Your task to perform on an android device: Go to Google maps Image 0: 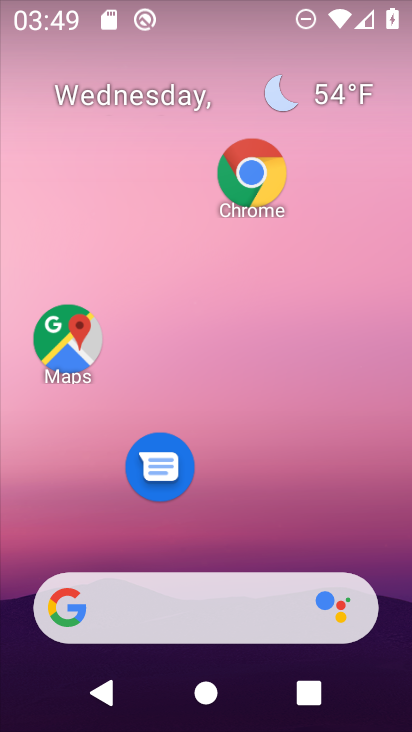
Step 0: click (73, 347)
Your task to perform on an android device: Go to Google maps Image 1: 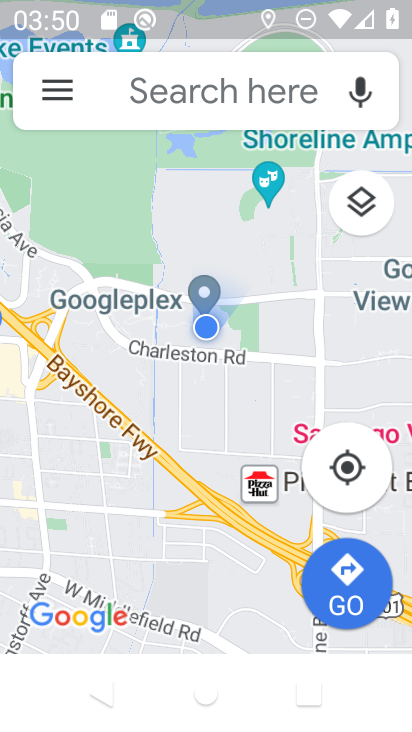
Step 1: task complete